Your task to perform on an android device: open chrome and create a bookmark for the current page Image 0: 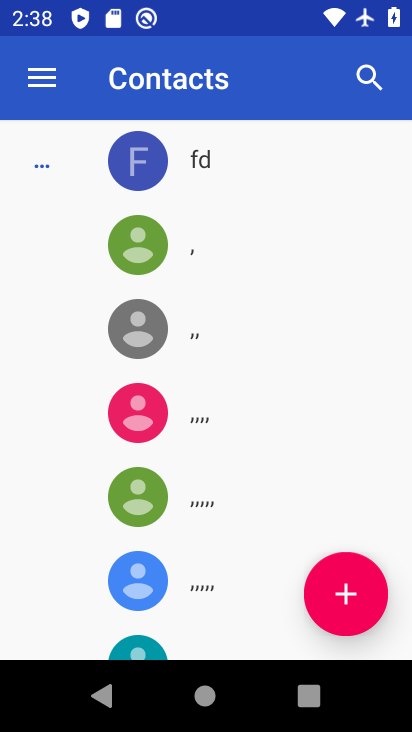
Step 0: press home button
Your task to perform on an android device: open chrome and create a bookmark for the current page Image 1: 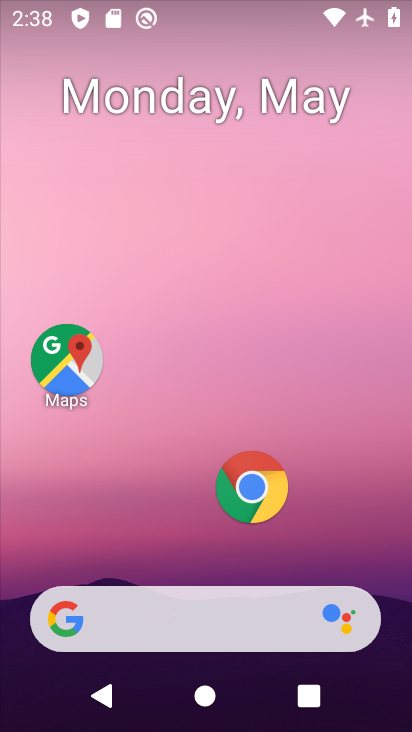
Step 1: click (250, 482)
Your task to perform on an android device: open chrome and create a bookmark for the current page Image 2: 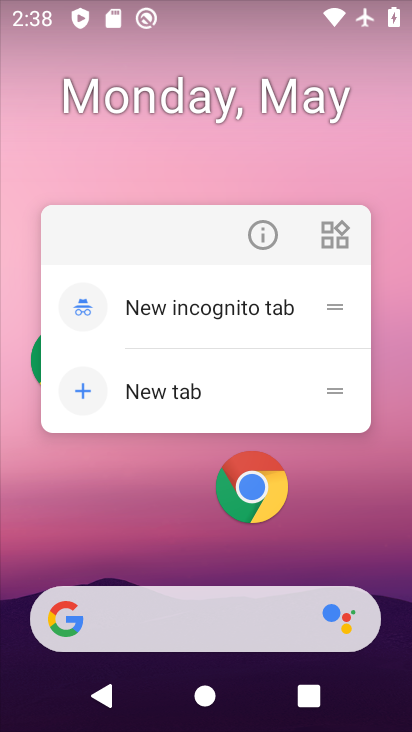
Step 2: click (248, 486)
Your task to perform on an android device: open chrome and create a bookmark for the current page Image 3: 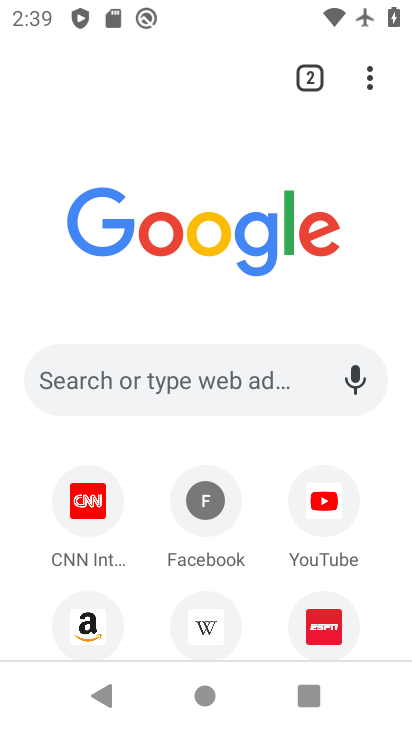
Step 3: click (375, 70)
Your task to perform on an android device: open chrome and create a bookmark for the current page Image 4: 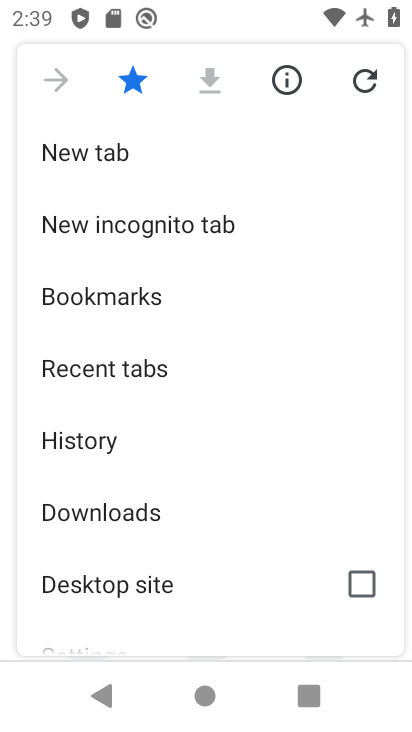
Step 4: task complete